Your task to perform on an android device: toggle pop-ups in chrome Image 0: 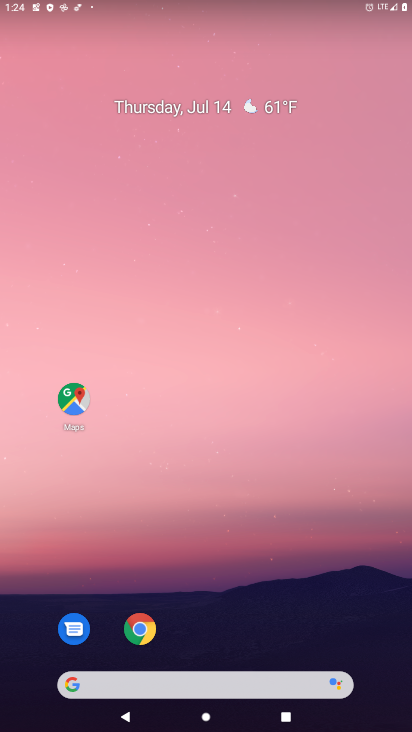
Step 0: click (147, 629)
Your task to perform on an android device: toggle pop-ups in chrome Image 1: 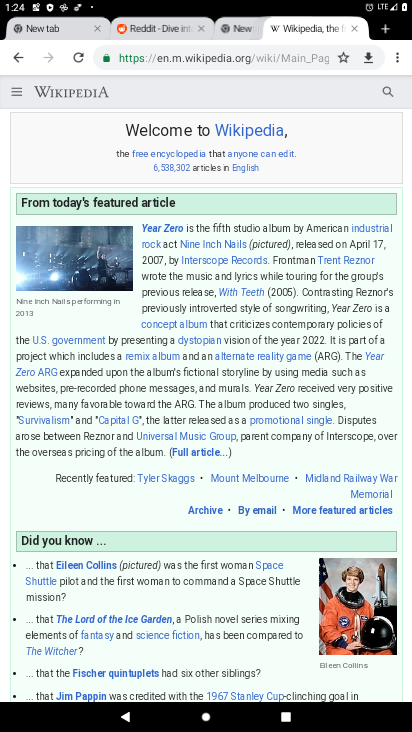
Step 1: click (396, 54)
Your task to perform on an android device: toggle pop-ups in chrome Image 2: 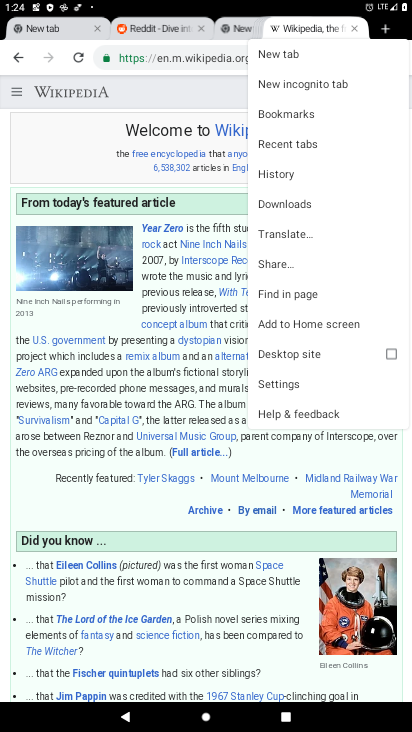
Step 2: click (287, 383)
Your task to perform on an android device: toggle pop-ups in chrome Image 3: 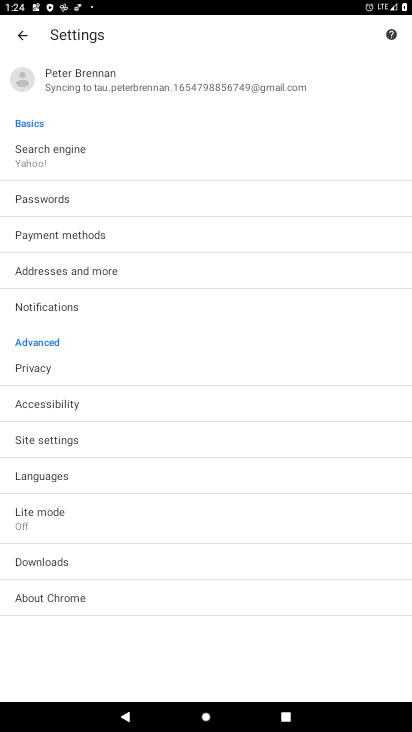
Step 3: click (55, 438)
Your task to perform on an android device: toggle pop-ups in chrome Image 4: 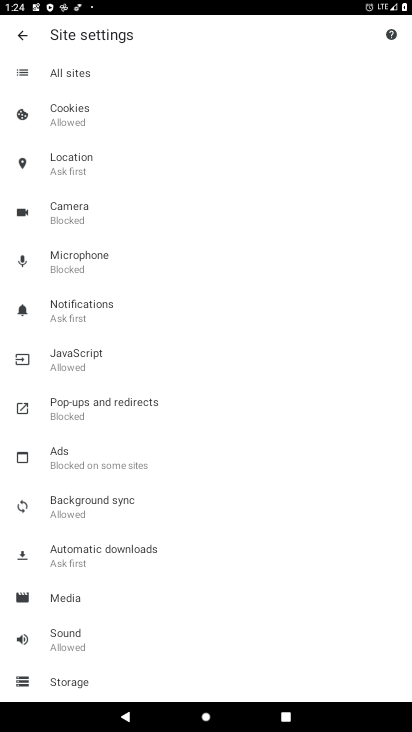
Step 4: click (97, 401)
Your task to perform on an android device: toggle pop-ups in chrome Image 5: 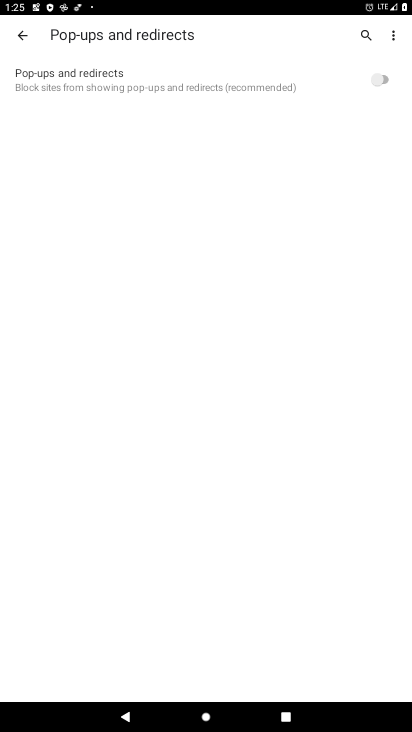
Step 5: click (382, 74)
Your task to perform on an android device: toggle pop-ups in chrome Image 6: 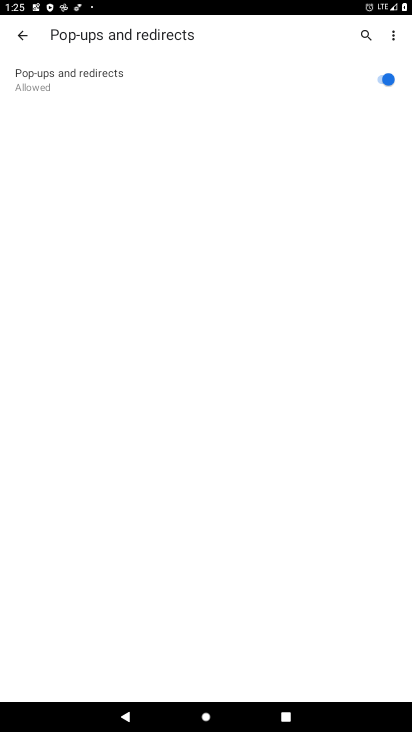
Step 6: task complete